Your task to perform on an android device: move an email to a new category in the gmail app Image 0: 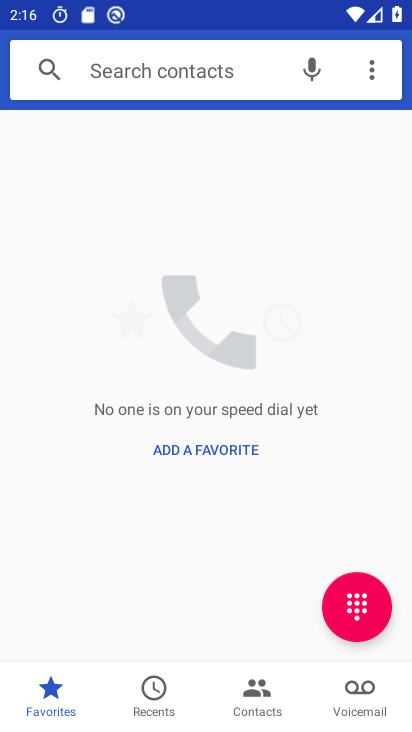
Step 0: drag from (195, 624) to (198, 162)
Your task to perform on an android device: move an email to a new category in the gmail app Image 1: 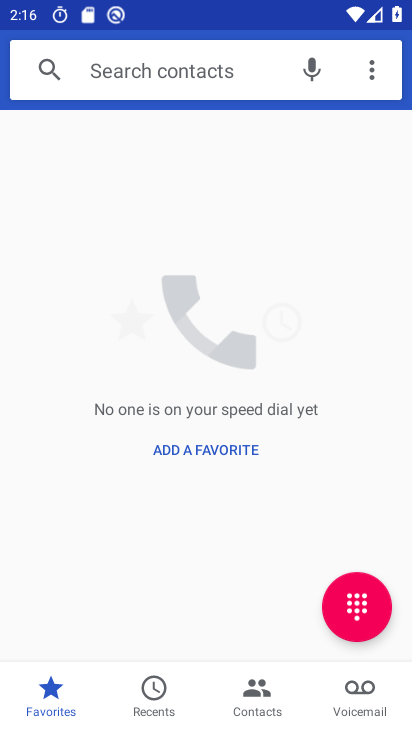
Step 1: press home button
Your task to perform on an android device: move an email to a new category in the gmail app Image 2: 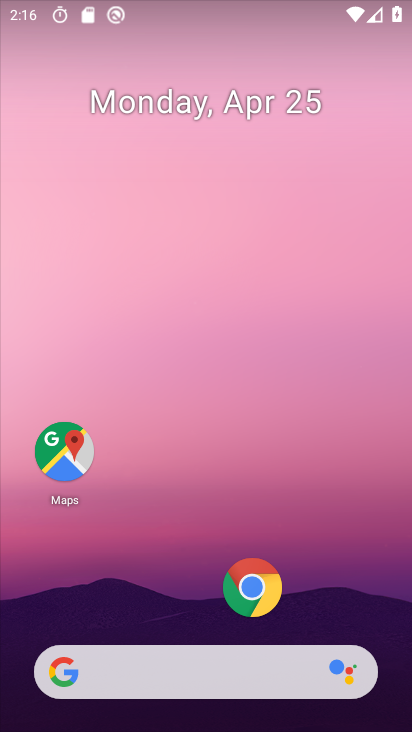
Step 2: drag from (200, 622) to (225, 88)
Your task to perform on an android device: move an email to a new category in the gmail app Image 3: 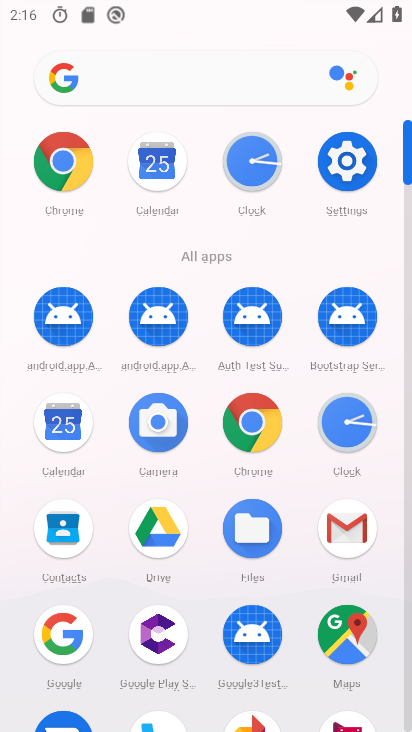
Step 3: click (340, 519)
Your task to perform on an android device: move an email to a new category in the gmail app Image 4: 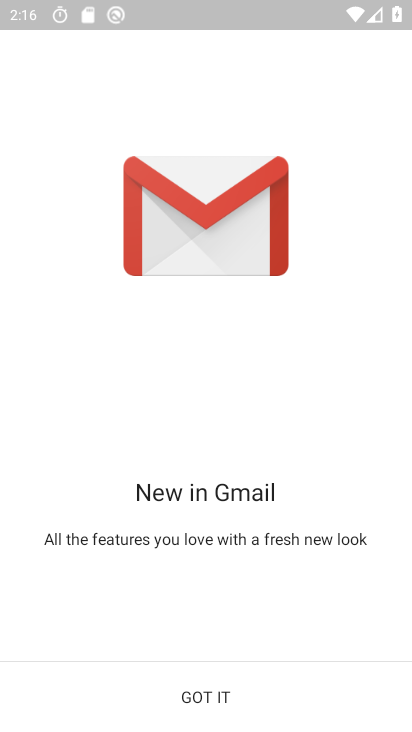
Step 4: click (211, 696)
Your task to perform on an android device: move an email to a new category in the gmail app Image 5: 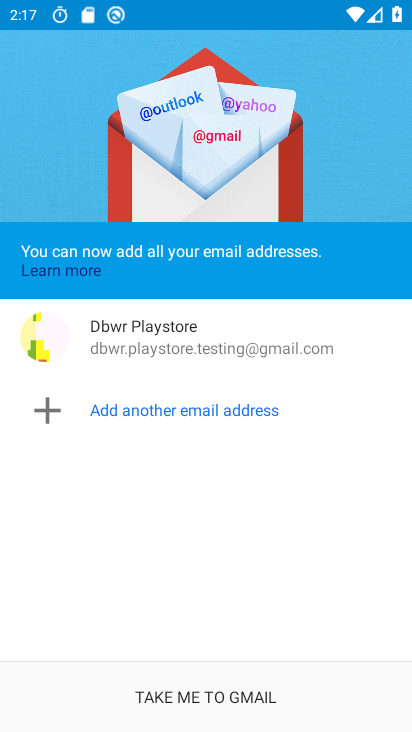
Step 5: click (212, 710)
Your task to perform on an android device: move an email to a new category in the gmail app Image 6: 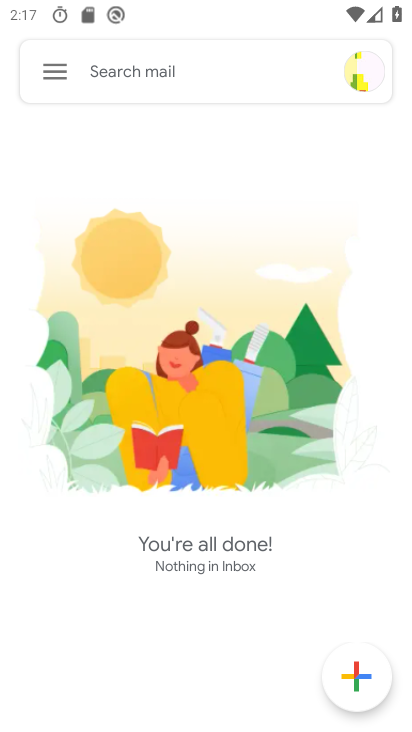
Step 6: click (48, 56)
Your task to perform on an android device: move an email to a new category in the gmail app Image 7: 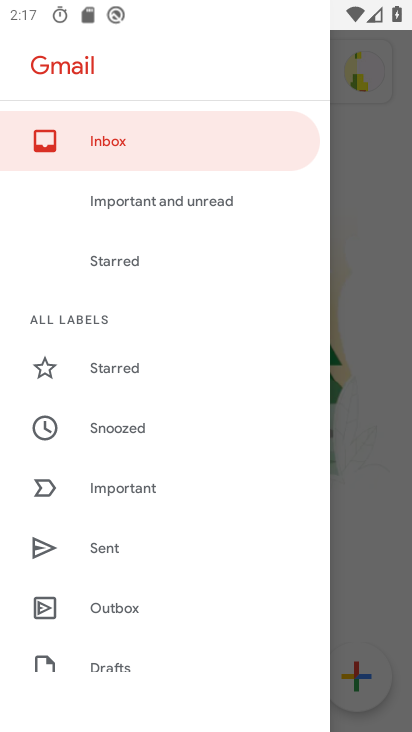
Step 7: drag from (135, 598) to (177, 217)
Your task to perform on an android device: move an email to a new category in the gmail app Image 8: 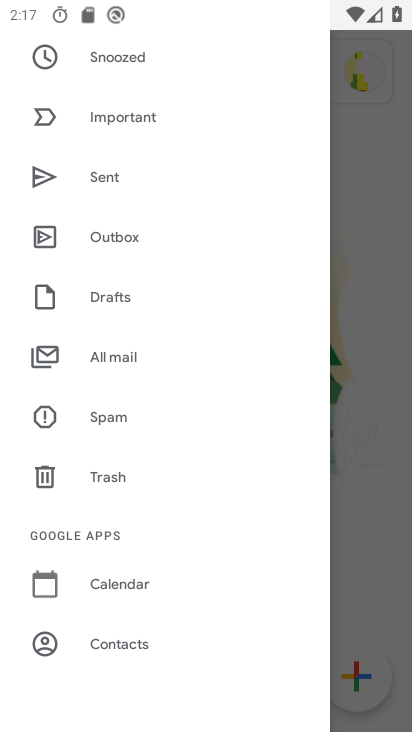
Step 8: click (68, 350)
Your task to perform on an android device: move an email to a new category in the gmail app Image 9: 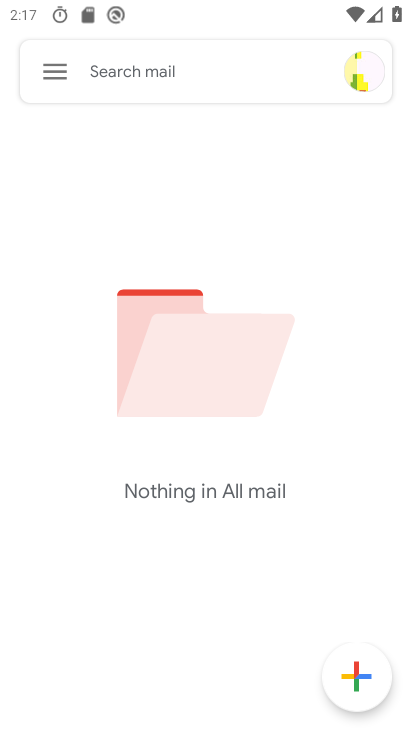
Step 9: task complete